Your task to perform on an android device: uninstall "Messages" Image 0: 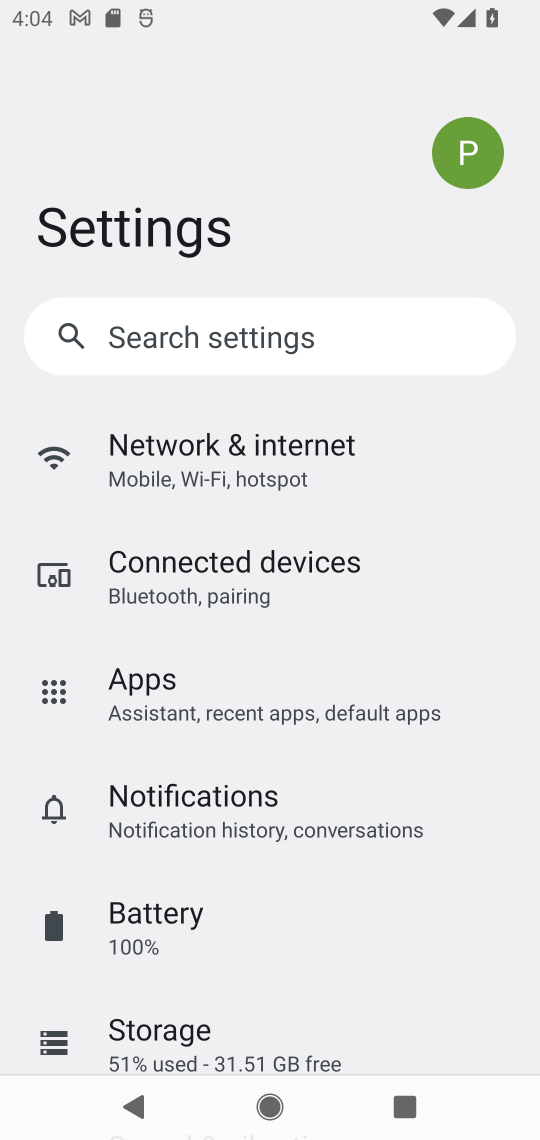
Step 0: press home button
Your task to perform on an android device: uninstall "Messages" Image 1: 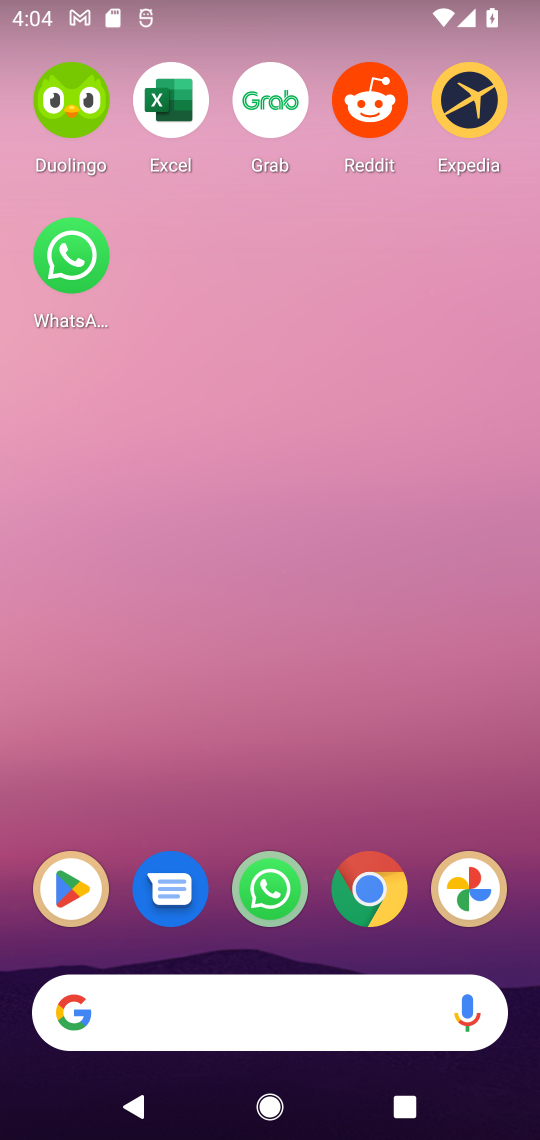
Step 1: drag from (406, 770) to (390, 75)
Your task to perform on an android device: uninstall "Messages" Image 2: 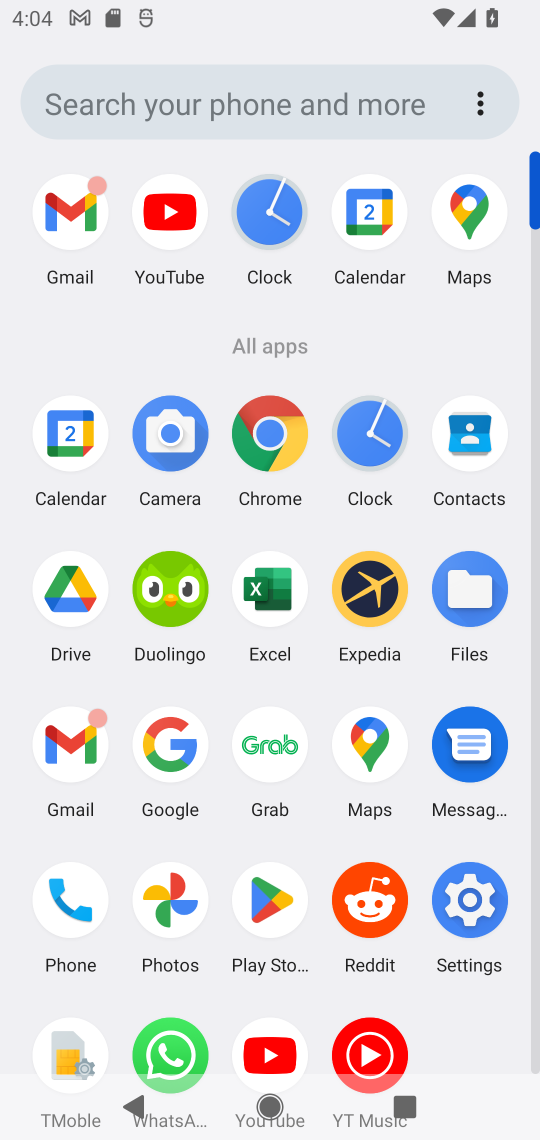
Step 2: click (268, 902)
Your task to perform on an android device: uninstall "Messages" Image 3: 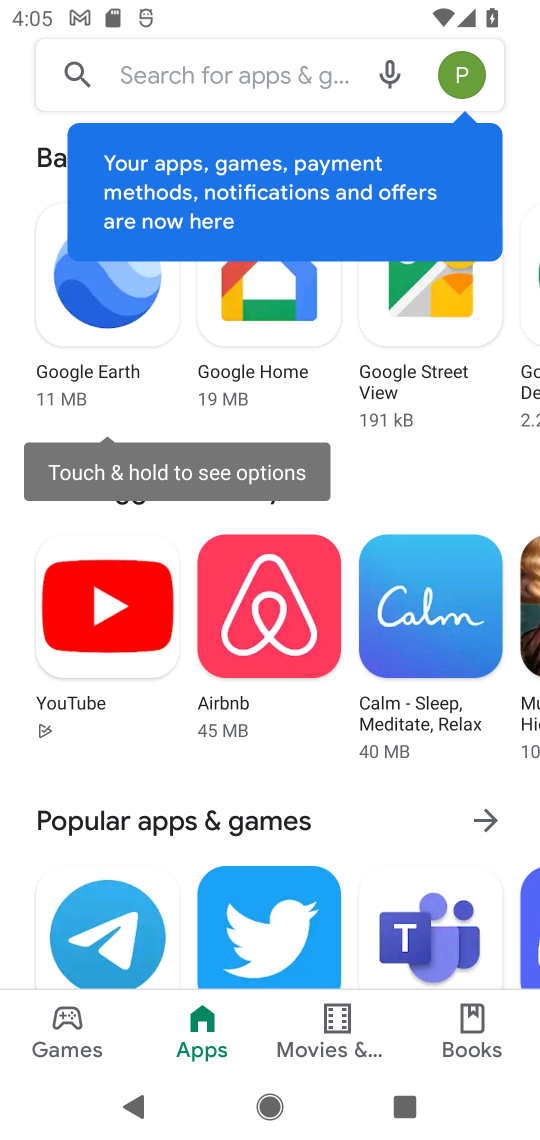
Step 3: click (322, 77)
Your task to perform on an android device: uninstall "Messages" Image 4: 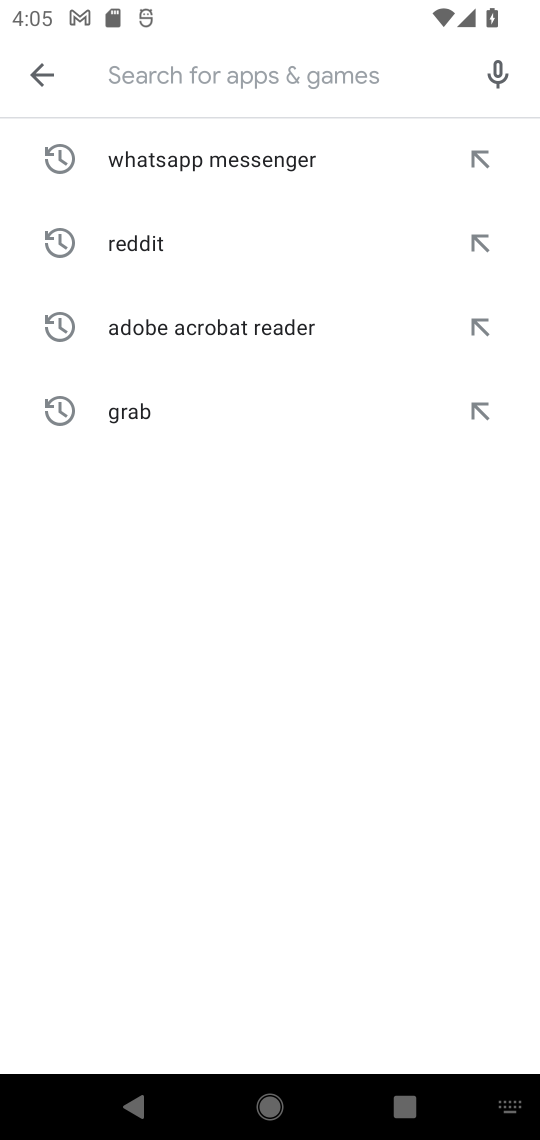
Step 4: type "messages"
Your task to perform on an android device: uninstall "Messages" Image 5: 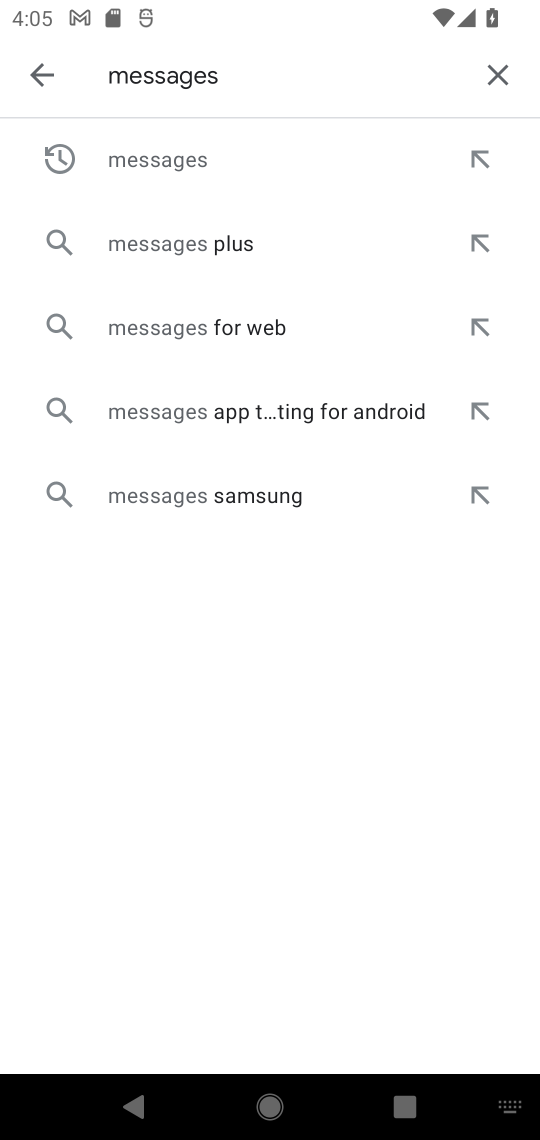
Step 5: click (222, 164)
Your task to perform on an android device: uninstall "Messages" Image 6: 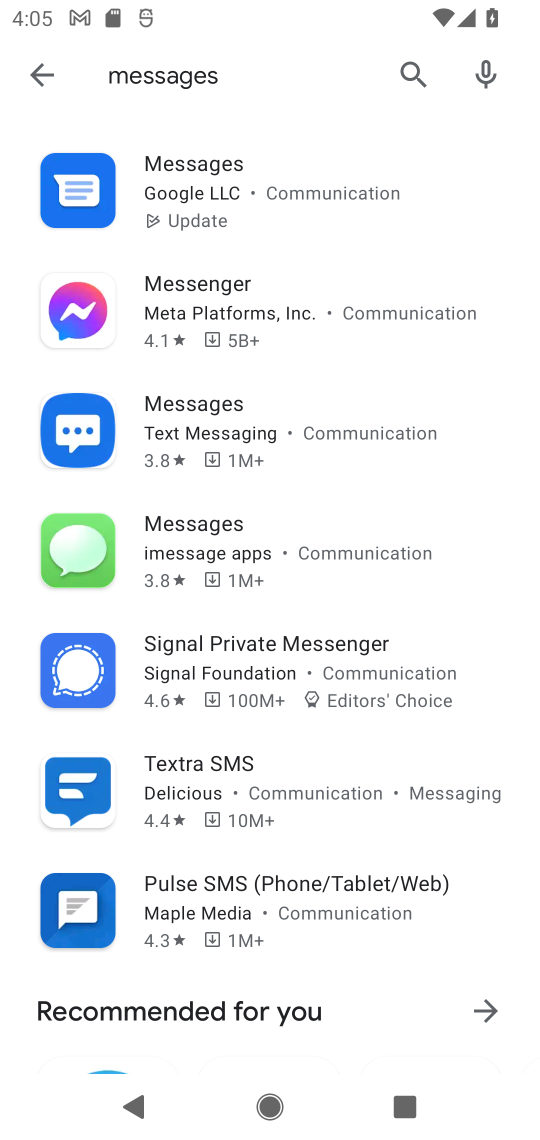
Step 6: click (325, 199)
Your task to perform on an android device: uninstall "Messages" Image 7: 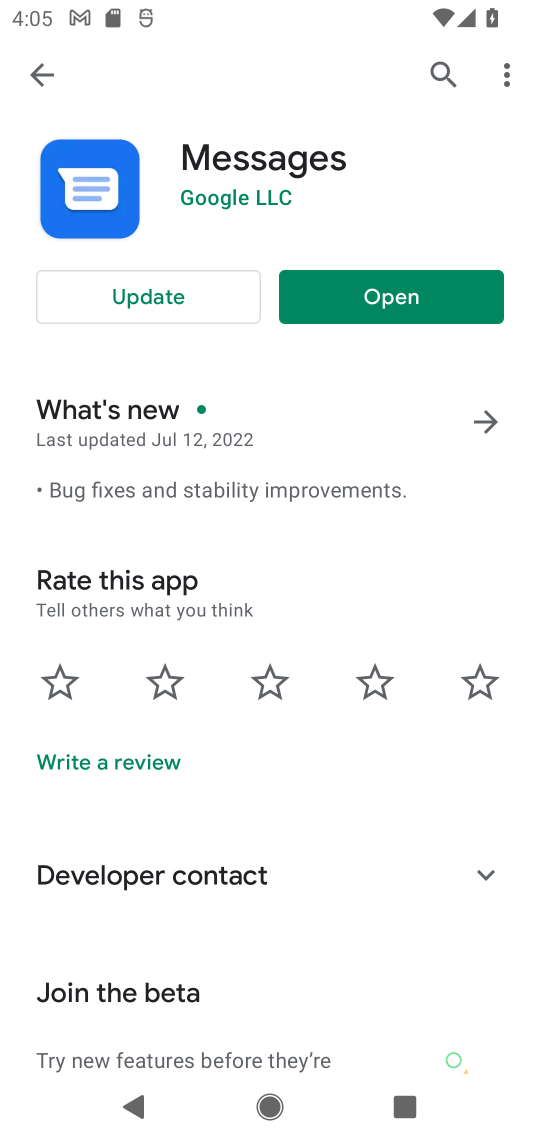
Step 7: task complete